Your task to perform on an android device: Open accessibility settings Image 0: 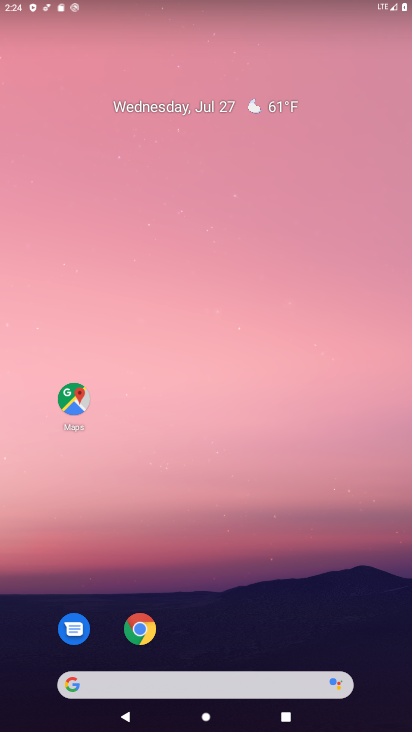
Step 0: drag from (251, 690) to (293, 0)
Your task to perform on an android device: Open accessibility settings Image 1: 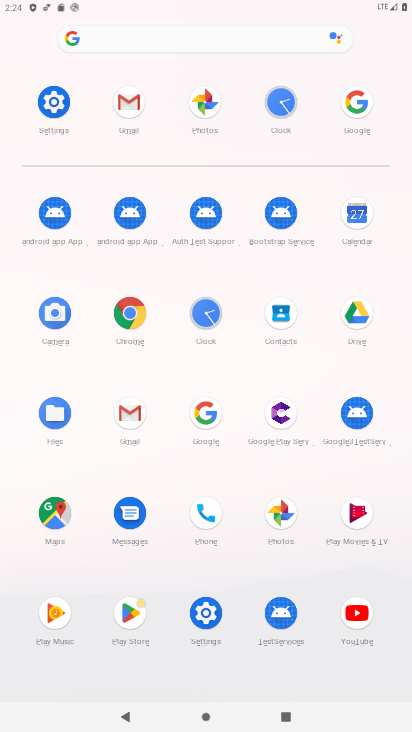
Step 1: click (54, 101)
Your task to perform on an android device: Open accessibility settings Image 2: 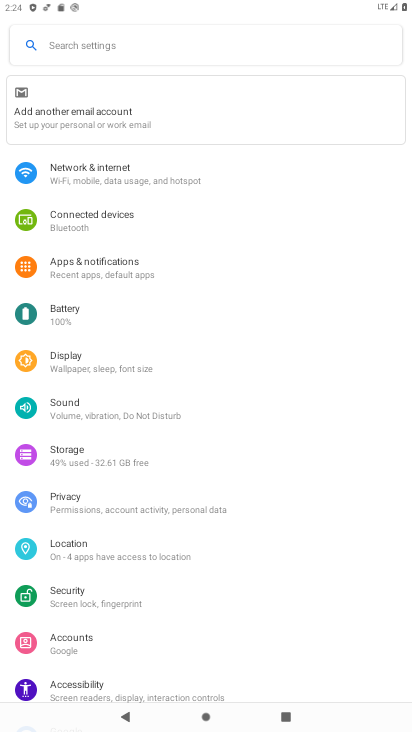
Step 2: click (81, 685)
Your task to perform on an android device: Open accessibility settings Image 3: 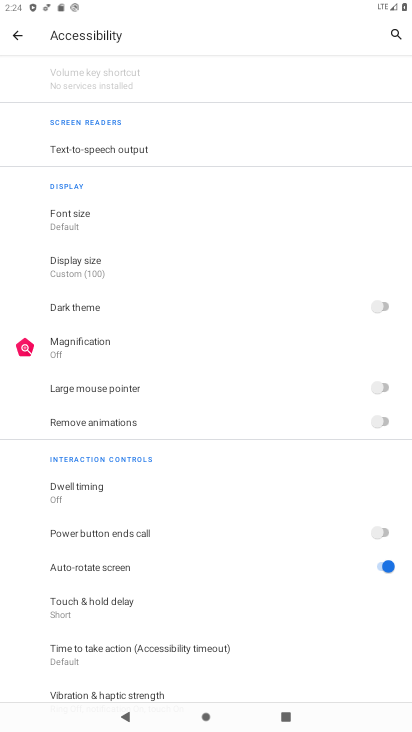
Step 3: task complete